Your task to perform on an android device: check battery use Image 0: 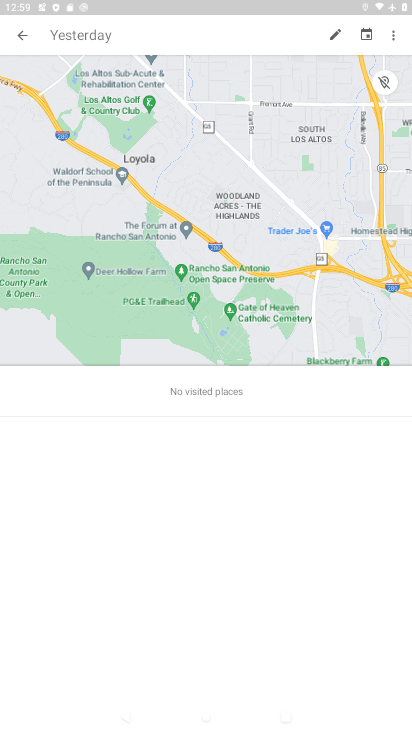
Step 0: task complete